Your task to perform on an android device: Open calendar and show me the second week of next month Image 0: 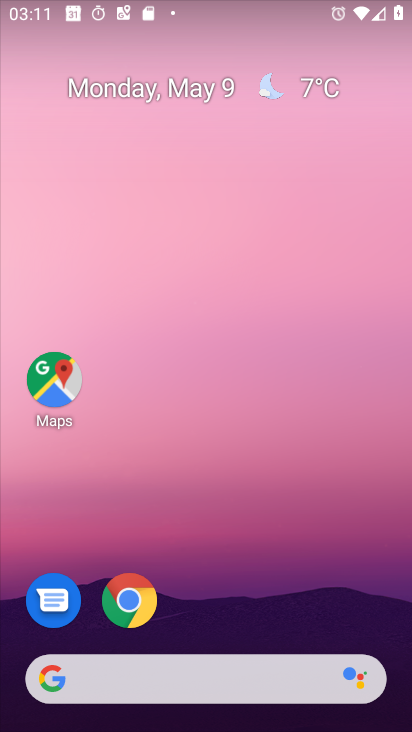
Step 0: drag from (211, 662) to (209, 162)
Your task to perform on an android device: Open calendar and show me the second week of next month Image 1: 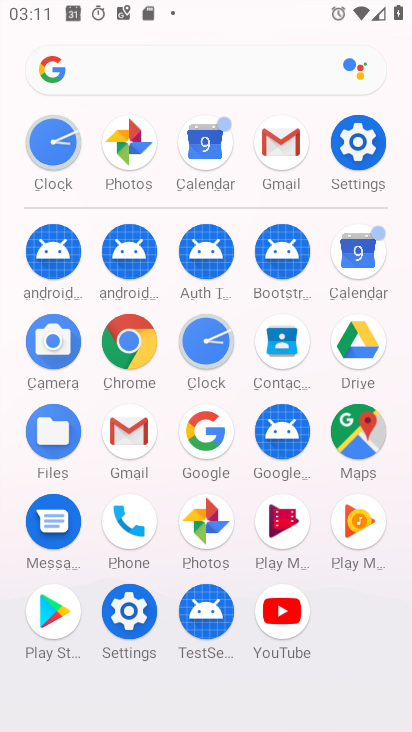
Step 1: click (362, 262)
Your task to perform on an android device: Open calendar and show me the second week of next month Image 2: 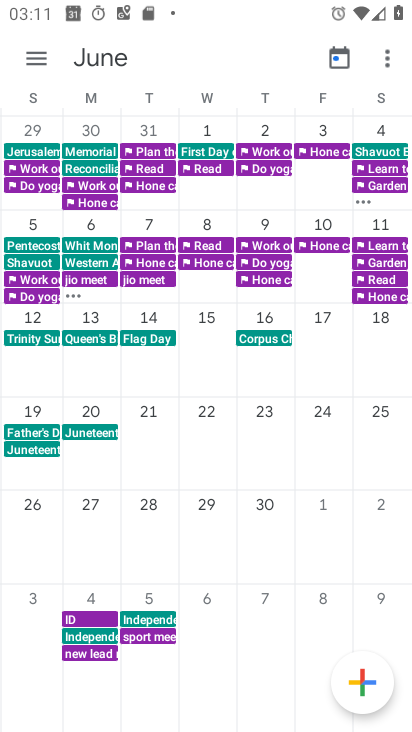
Step 2: task complete